Your task to perform on an android device: Open notification settings Image 0: 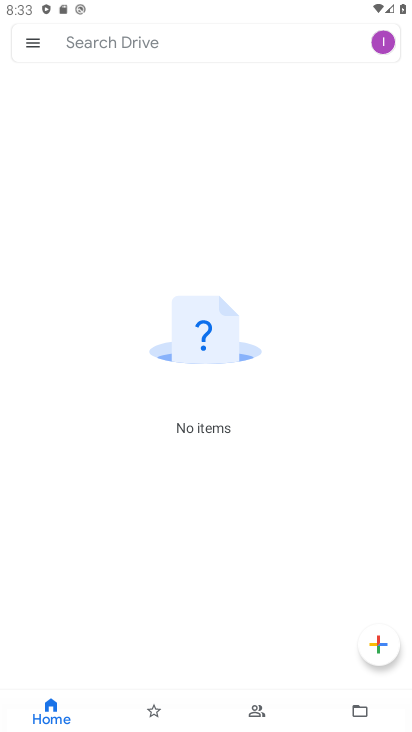
Step 0: press back button
Your task to perform on an android device: Open notification settings Image 1: 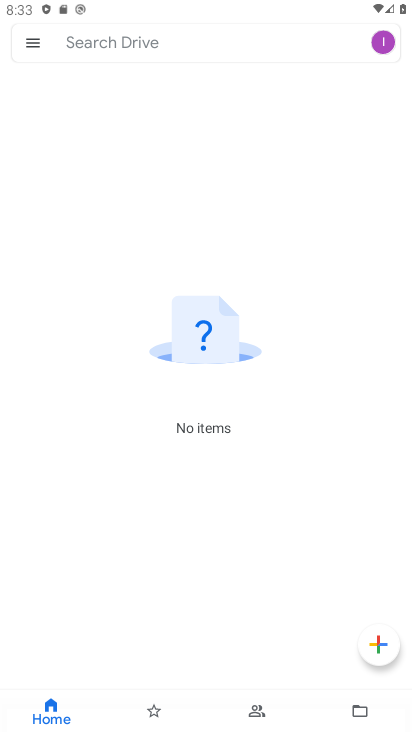
Step 1: press back button
Your task to perform on an android device: Open notification settings Image 2: 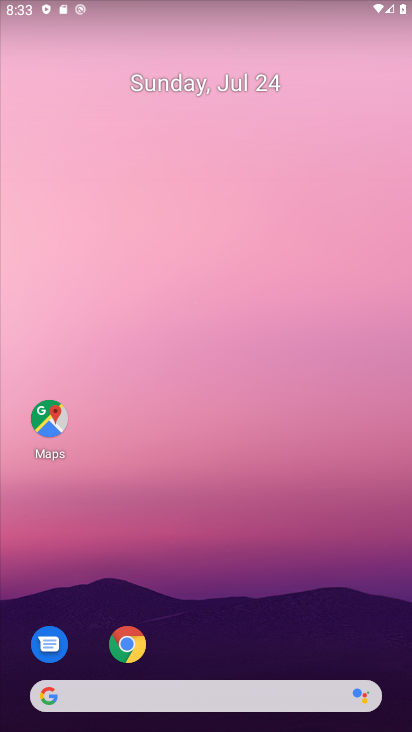
Step 2: drag from (285, 651) to (277, 208)
Your task to perform on an android device: Open notification settings Image 3: 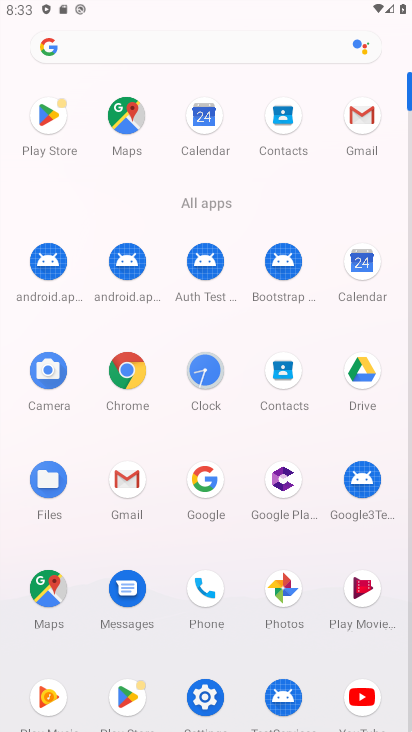
Step 3: click (199, 705)
Your task to perform on an android device: Open notification settings Image 4: 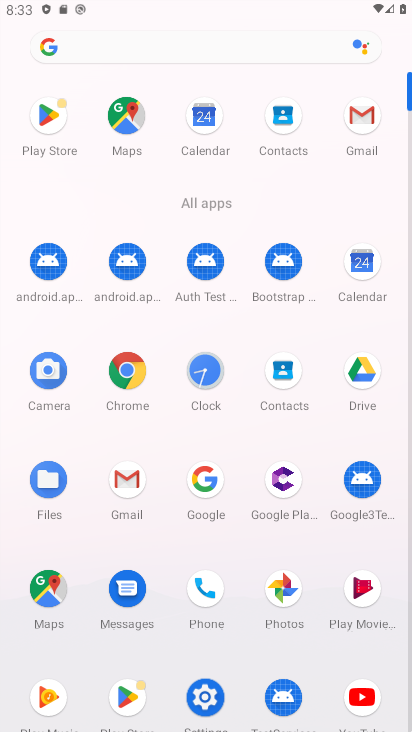
Step 4: click (201, 705)
Your task to perform on an android device: Open notification settings Image 5: 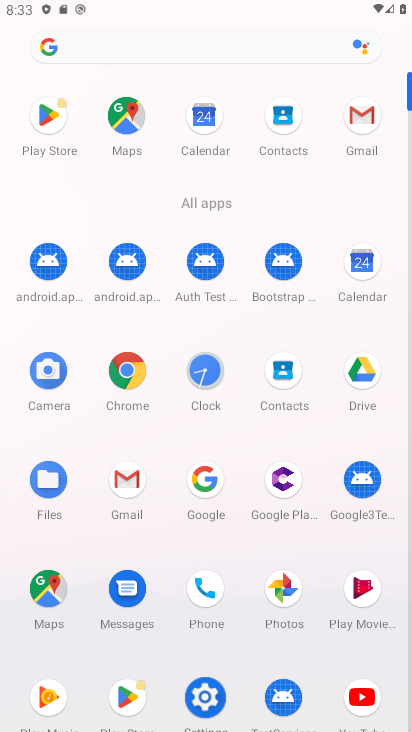
Step 5: click (202, 702)
Your task to perform on an android device: Open notification settings Image 6: 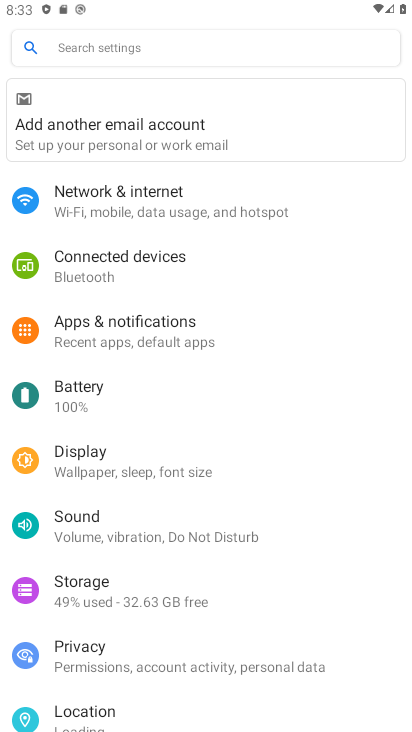
Step 6: click (117, 332)
Your task to perform on an android device: Open notification settings Image 7: 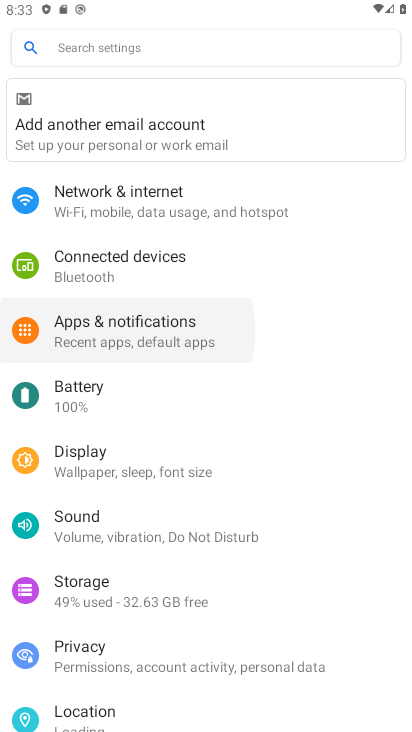
Step 7: click (117, 332)
Your task to perform on an android device: Open notification settings Image 8: 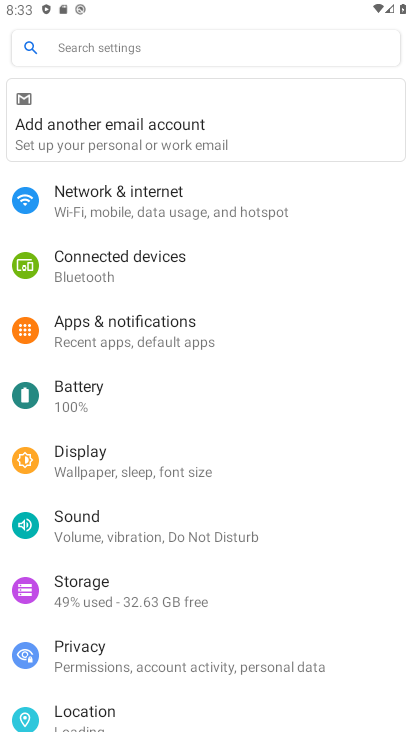
Step 8: click (136, 306)
Your task to perform on an android device: Open notification settings Image 9: 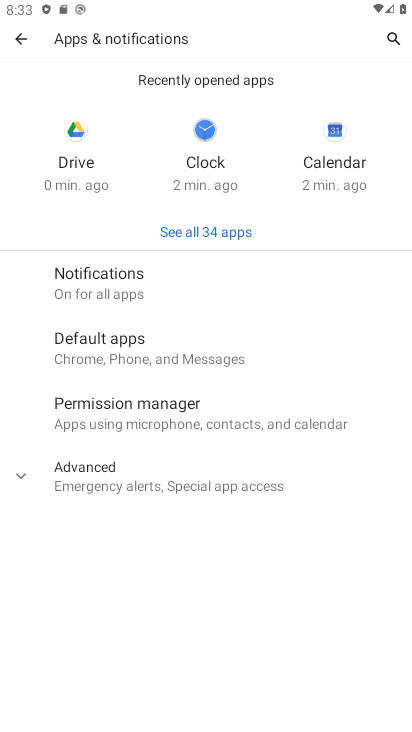
Step 9: task complete